Your task to perform on an android device: Is it going to rain this weekend? Image 0: 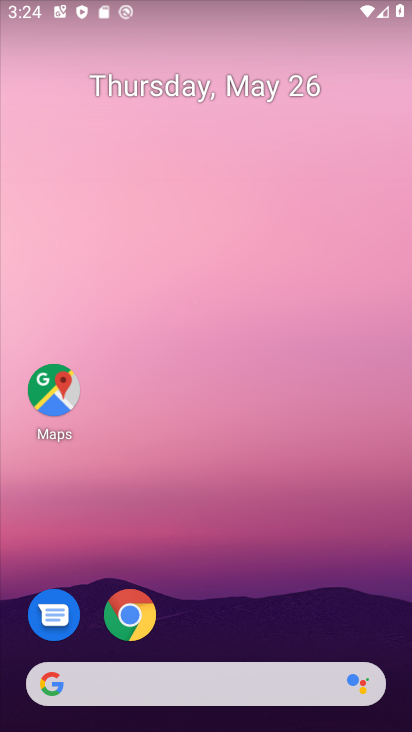
Step 0: drag from (22, 302) to (410, 212)
Your task to perform on an android device: Is it going to rain this weekend? Image 1: 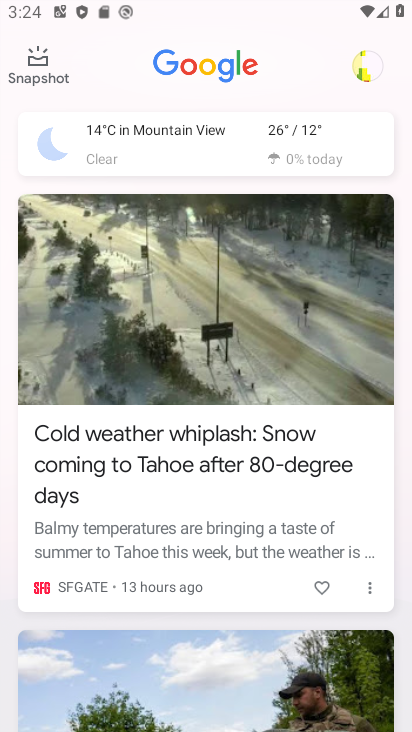
Step 1: click (282, 125)
Your task to perform on an android device: Is it going to rain this weekend? Image 2: 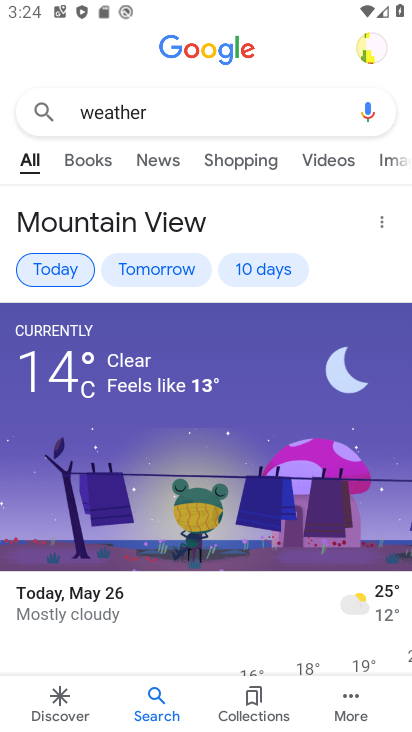
Step 2: click (243, 267)
Your task to perform on an android device: Is it going to rain this weekend? Image 3: 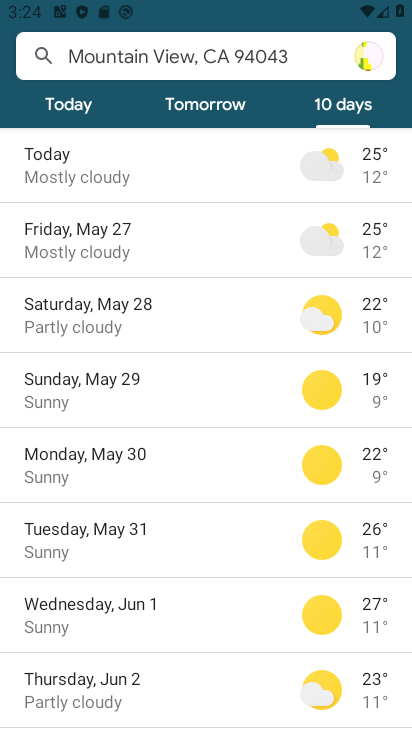
Step 3: task complete